Your task to perform on an android device: Toggle the flashlight Image 0: 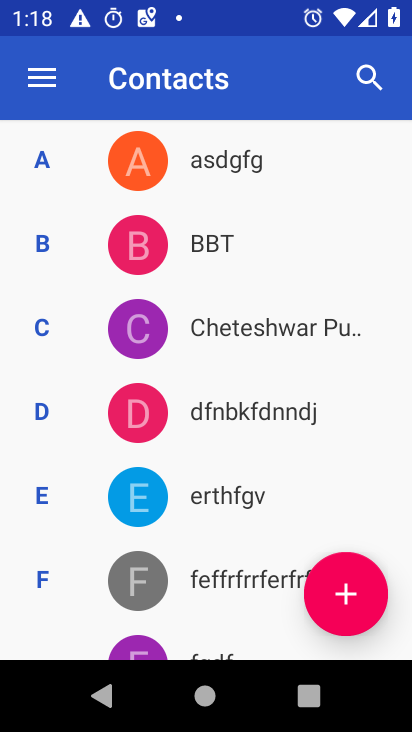
Step 0: press back button
Your task to perform on an android device: Toggle the flashlight Image 1: 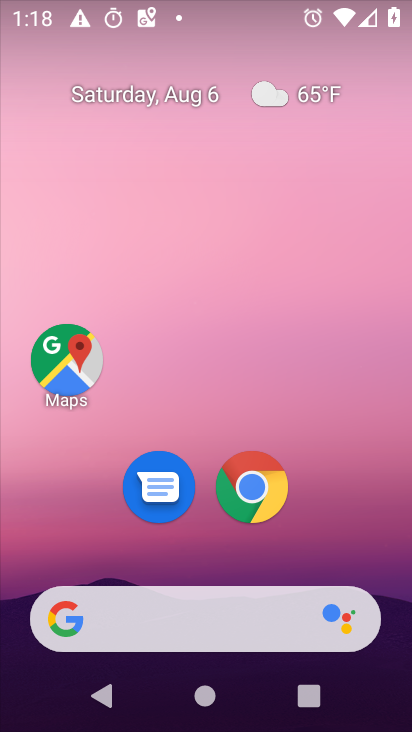
Step 1: drag from (218, 566) to (269, 75)
Your task to perform on an android device: Toggle the flashlight Image 2: 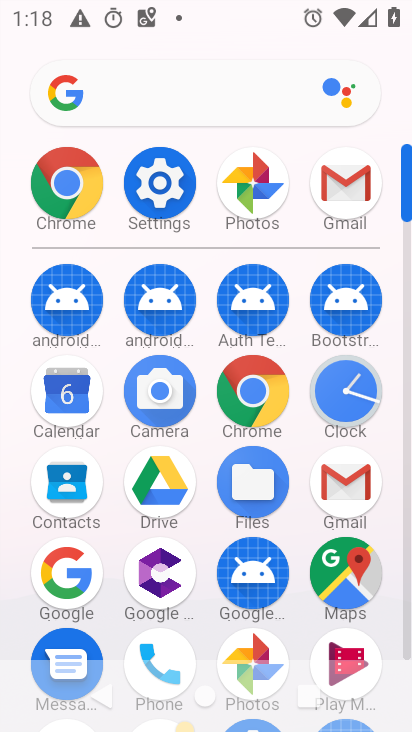
Step 2: click (154, 184)
Your task to perform on an android device: Toggle the flashlight Image 3: 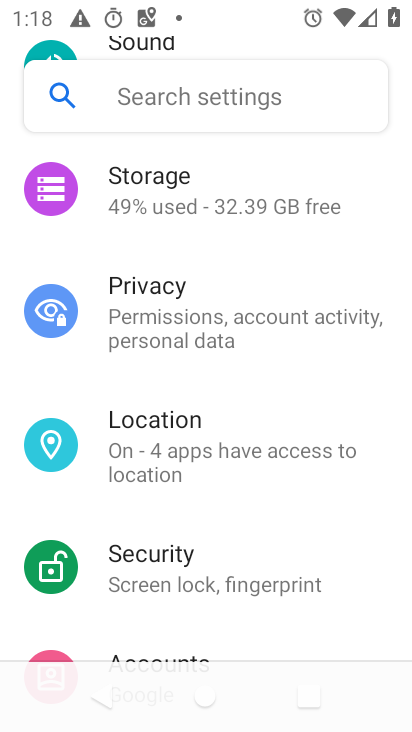
Step 3: click (177, 90)
Your task to perform on an android device: Toggle the flashlight Image 4: 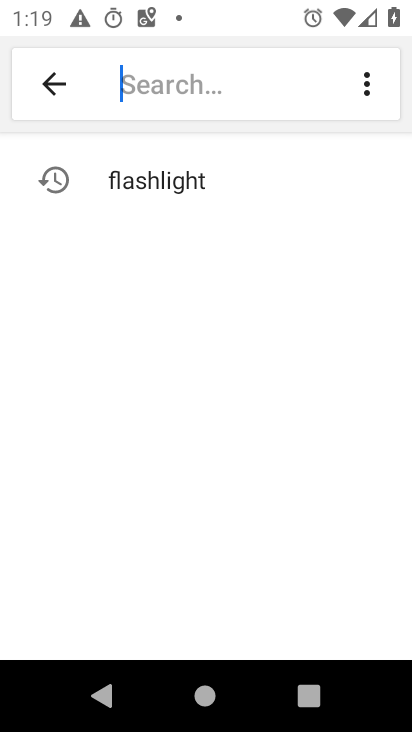
Step 4: type "flashlight"
Your task to perform on an android device: Toggle the flashlight Image 5: 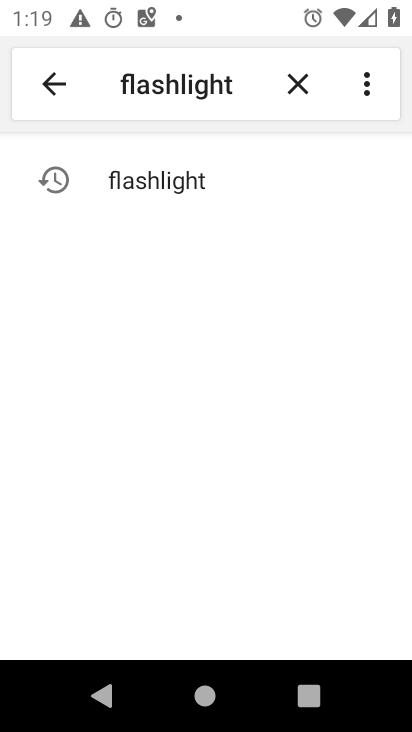
Step 5: click (193, 187)
Your task to perform on an android device: Toggle the flashlight Image 6: 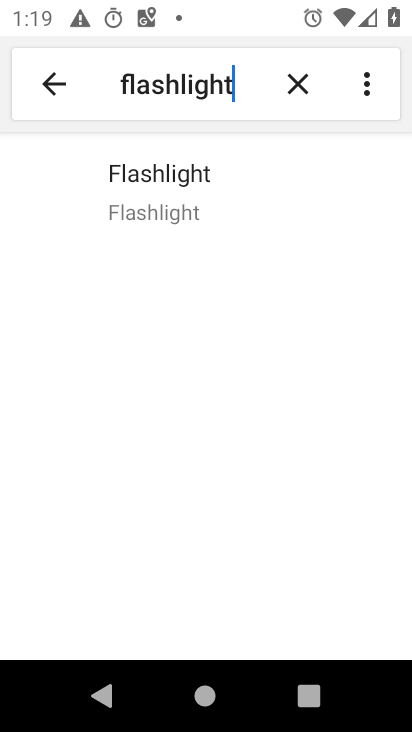
Step 6: click (193, 187)
Your task to perform on an android device: Toggle the flashlight Image 7: 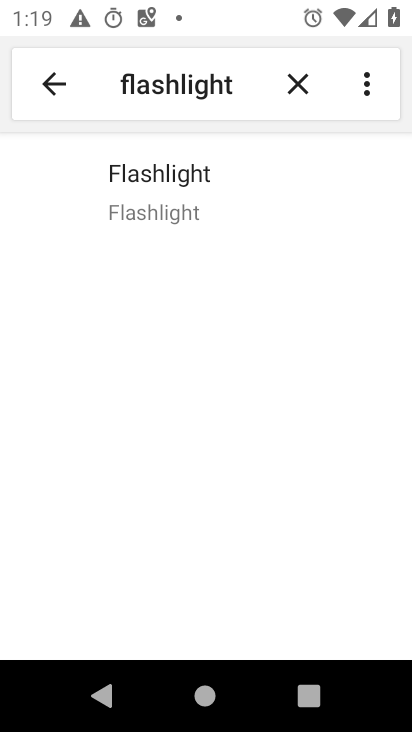
Step 7: task complete